Your task to perform on an android device: clear history in the chrome app Image 0: 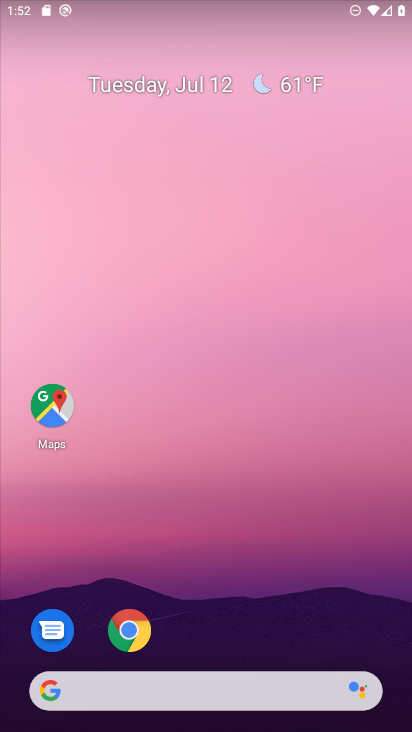
Step 0: click (143, 643)
Your task to perform on an android device: clear history in the chrome app Image 1: 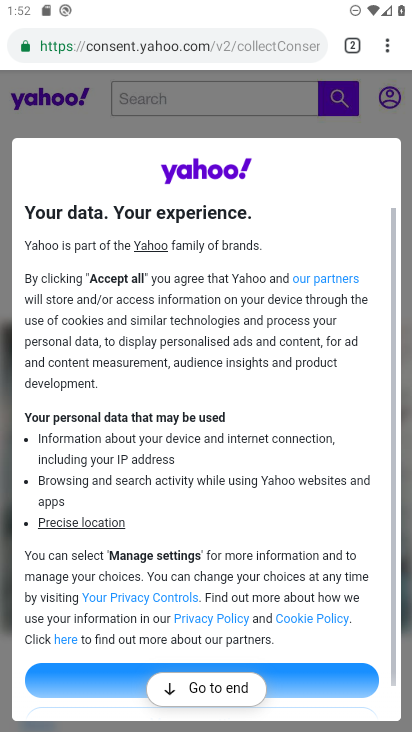
Step 1: click (390, 27)
Your task to perform on an android device: clear history in the chrome app Image 2: 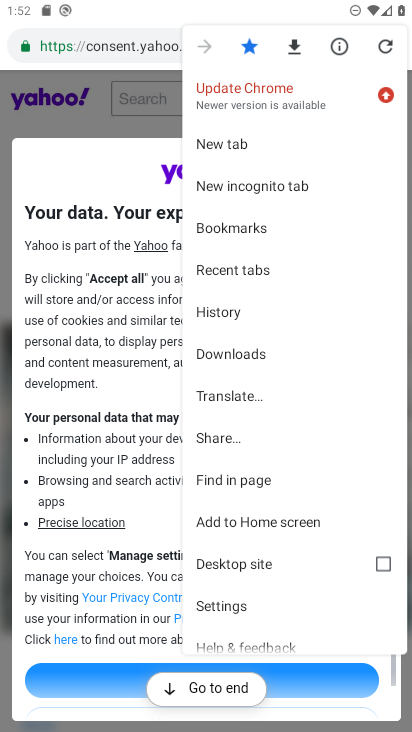
Step 2: click (228, 318)
Your task to perform on an android device: clear history in the chrome app Image 3: 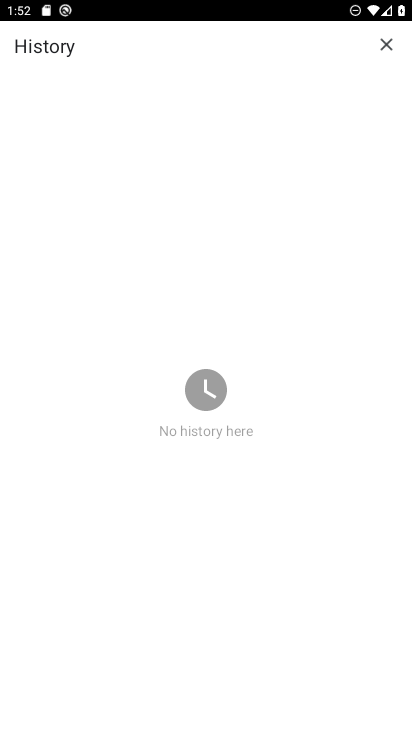
Step 3: task complete